Your task to perform on an android device: toggle data saver in the chrome app Image 0: 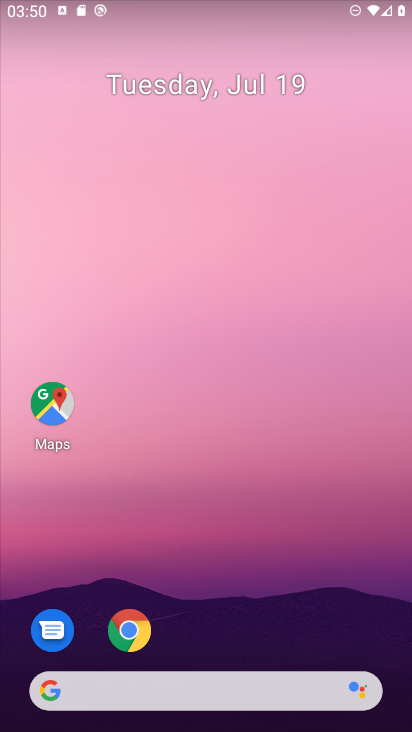
Step 0: click (126, 629)
Your task to perform on an android device: toggle data saver in the chrome app Image 1: 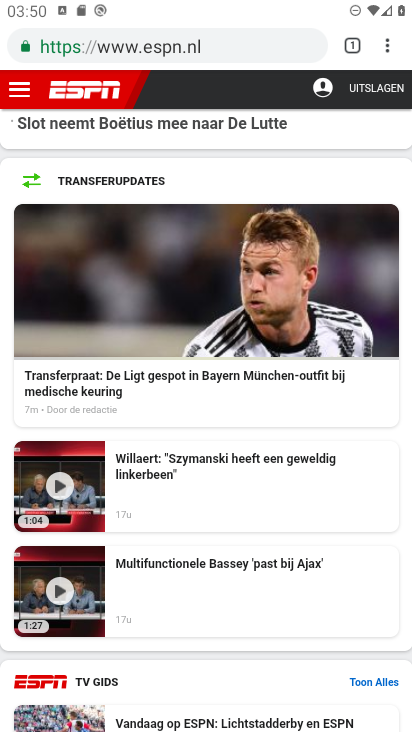
Step 1: click (387, 47)
Your task to perform on an android device: toggle data saver in the chrome app Image 2: 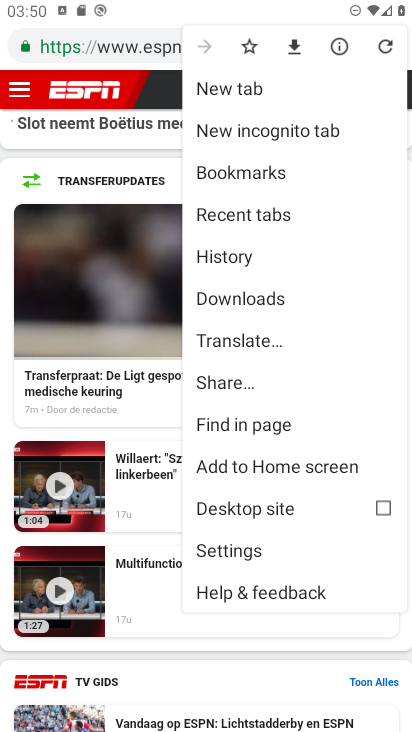
Step 2: click (244, 548)
Your task to perform on an android device: toggle data saver in the chrome app Image 3: 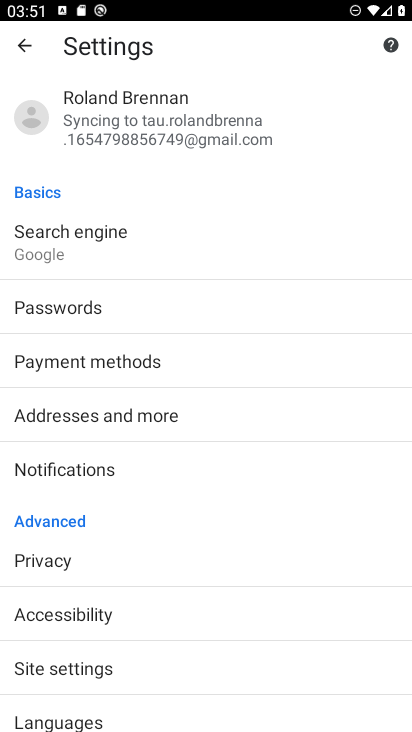
Step 3: drag from (188, 661) to (215, 356)
Your task to perform on an android device: toggle data saver in the chrome app Image 4: 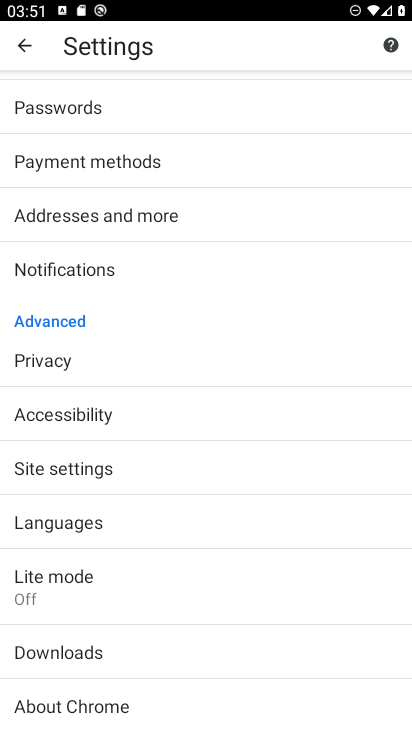
Step 4: click (39, 578)
Your task to perform on an android device: toggle data saver in the chrome app Image 5: 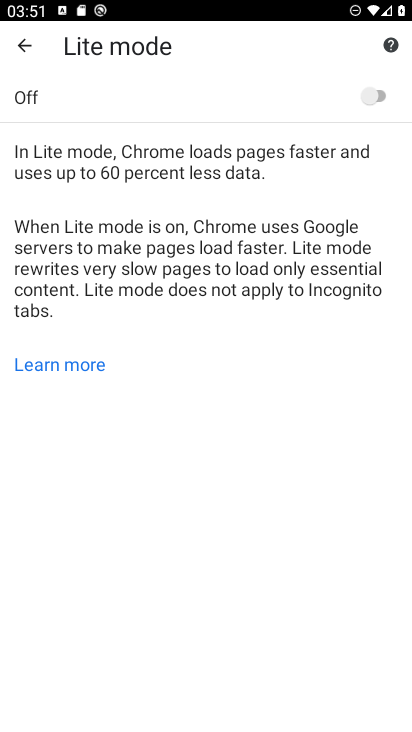
Step 5: click (381, 95)
Your task to perform on an android device: toggle data saver in the chrome app Image 6: 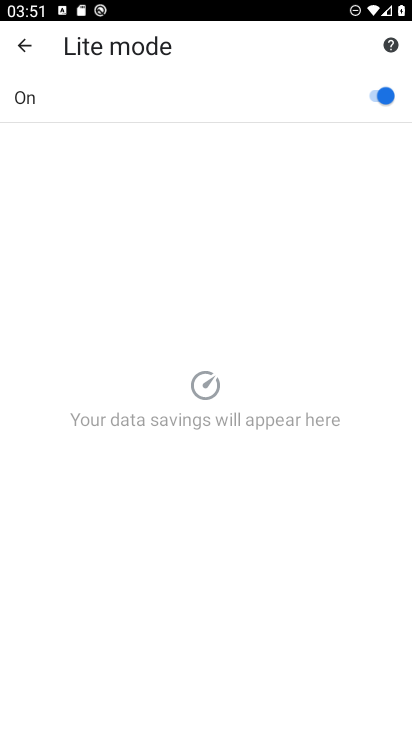
Step 6: task complete